Your task to perform on an android device: turn pop-ups on in chrome Image 0: 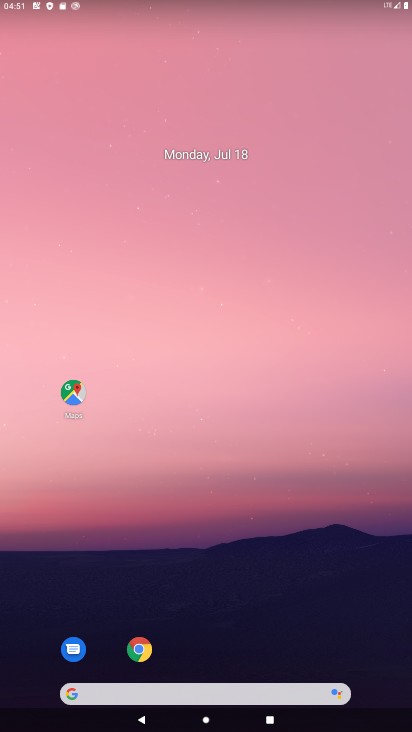
Step 0: click (140, 654)
Your task to perform on an android device: turn pop-ups on in chrome Image 1: 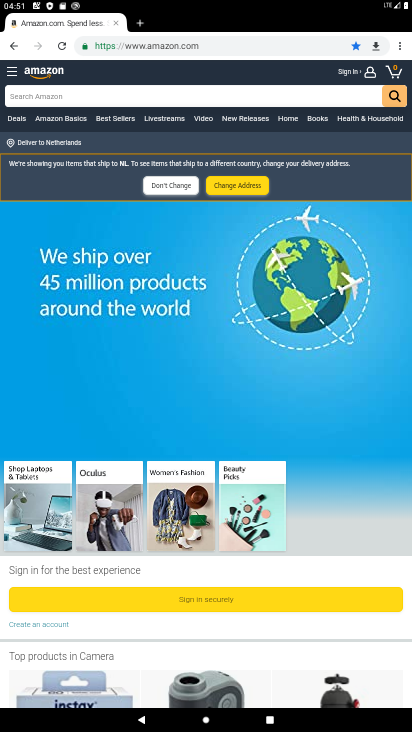
Step 1: click (400, 49)
Your task to perform on an android device: turn pop-ups on in chrome Image 2: 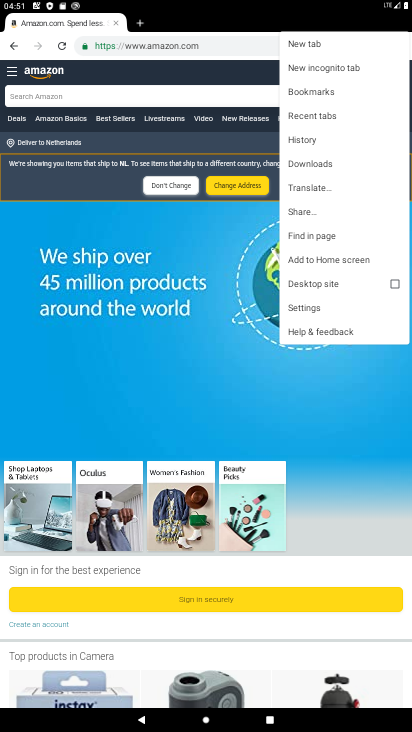
Step 2: click (306, 308)
Your task to perform on an android device: turn pop-ups on in chrome Image 3: 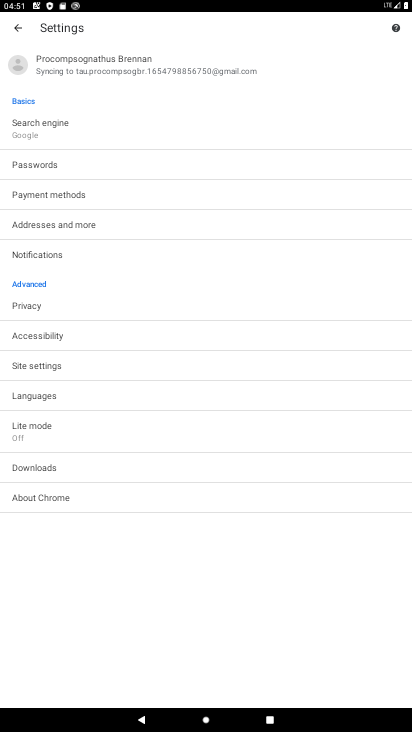
Step 3: click (73, 371)
Your task to perform on an android device: turn pop-ups on in chrome Image 4: 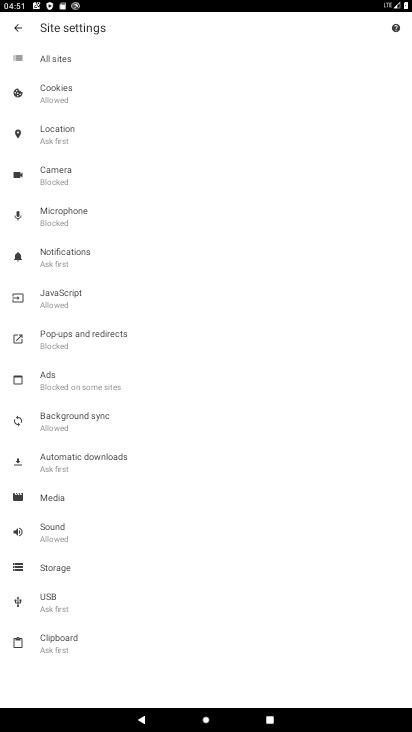
Step 4: click (69, 350)
Your task to perform on an android device: turn pop-ups on in chrome Image 5: 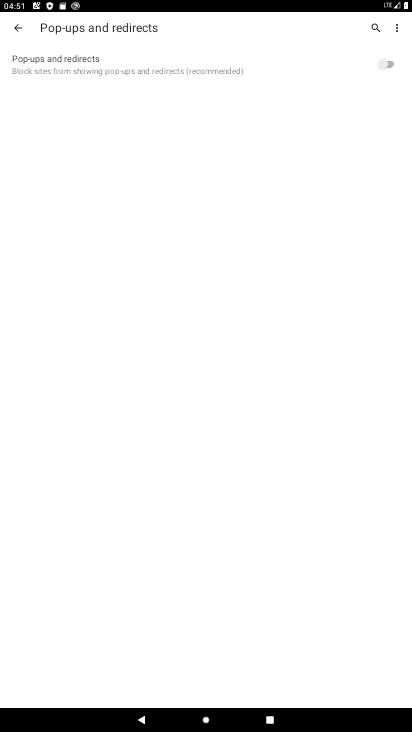
Step 5: click (390, 63)
Your task to perform on an android device: turn pop-ups on in chrome Image 6: 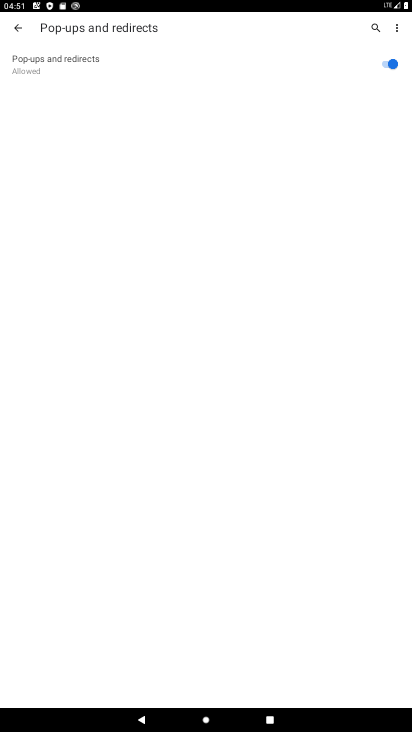
Step 6: task complete